Your task to perform on an android device: Go to location settings Image 0: 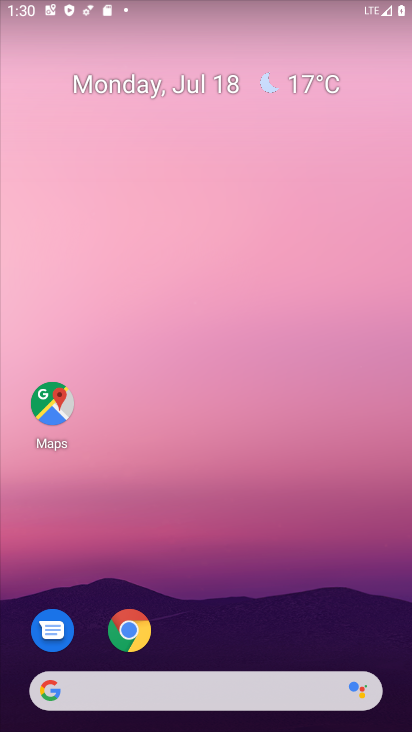
Step 0: drag from (256, 601) to (280, 43)
Your task to perform on an android device: Go to location settings Image 1: 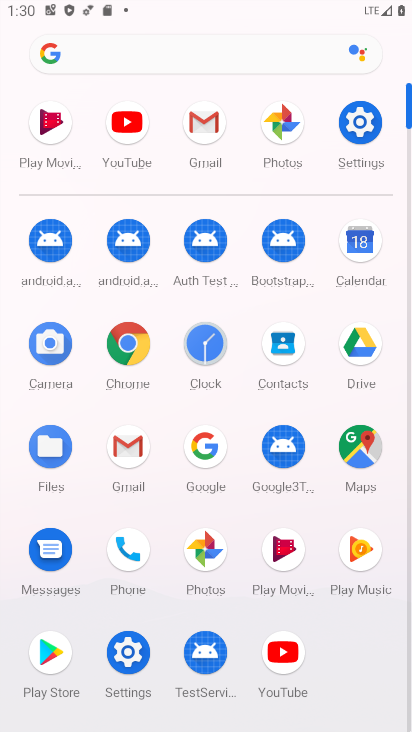
Step 1: click (360, 124)
Your task to perform on an android device: Go to location settings Image 2: 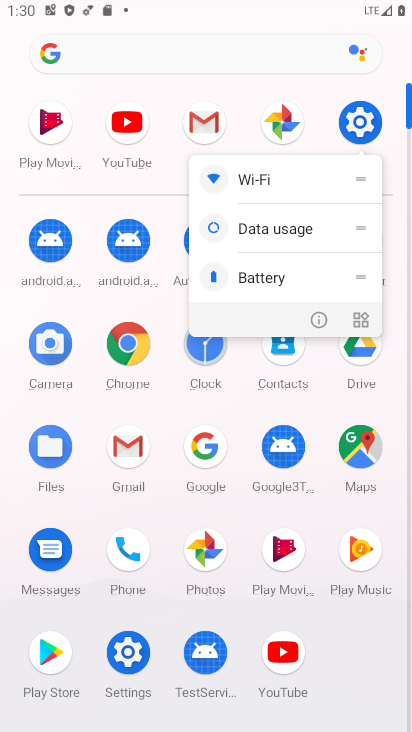
Step 2: click (360, 124)
Your task to perform on an android device: Go to location settings Image 3: 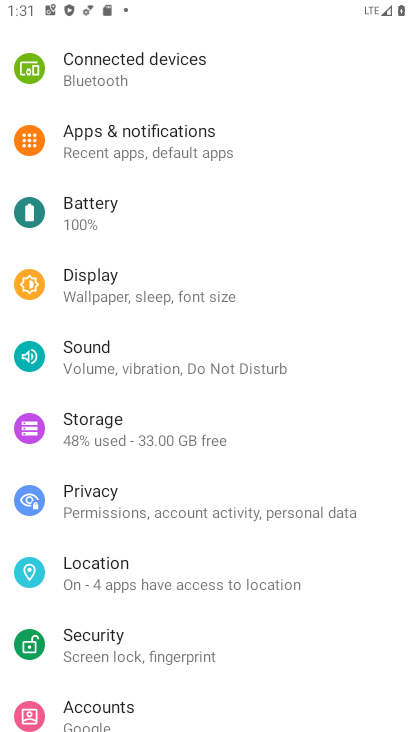
Step 3: click (194, 582)
Your task to perform on an android device: Go to location settings Image 4: 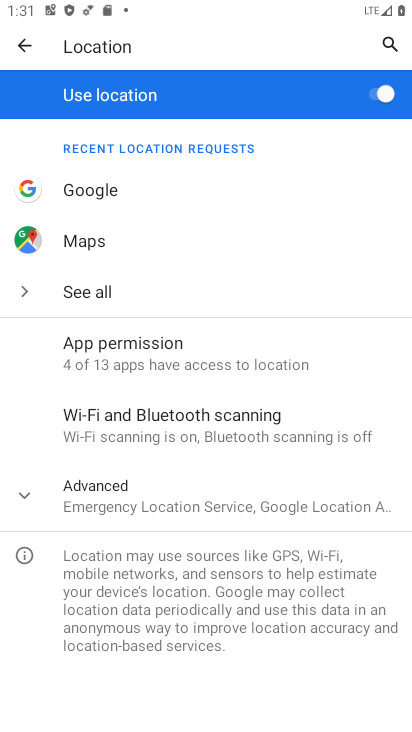
Step 4: task complete